Your task to perform on an android device: Open Google Maps and go to "Timeline" Image 0: 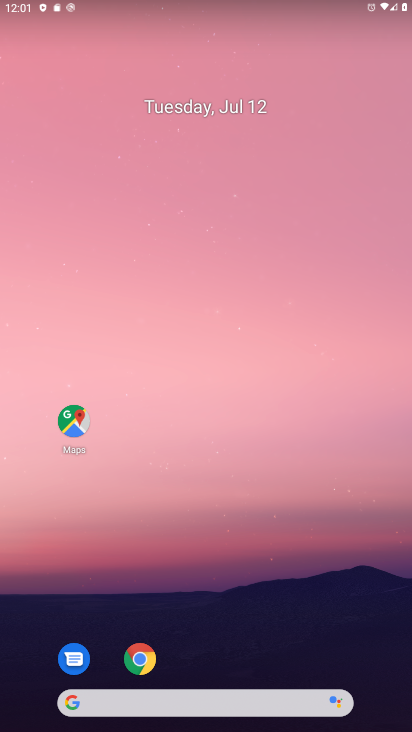
Step 0: drag from (188, 668) to (213, 6)
Your task to perform on an android device: Open Google Maps and go to "Timeline" Image 1: 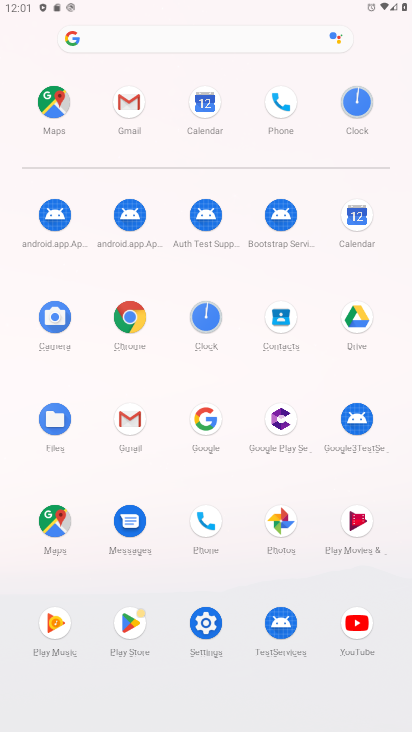
Step 1: click (52, 526)
Your task to perform on an android device: Open Google Maps and go to "Timeline" Image 2: 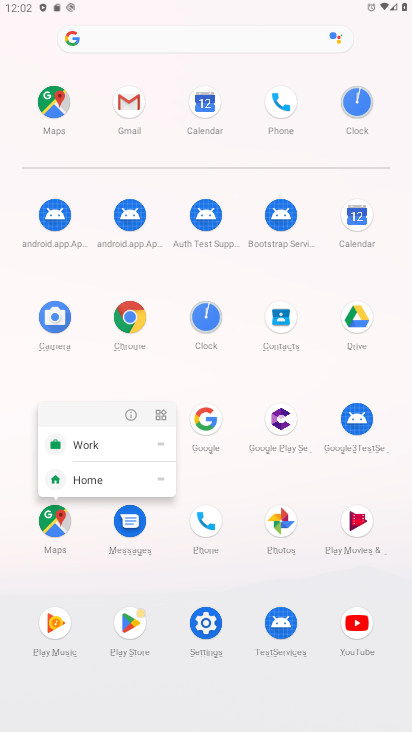
Step 2: click (127, 412)
Your task to perform on an android device: Open Google Maps and go to "Timeline" Image 3: 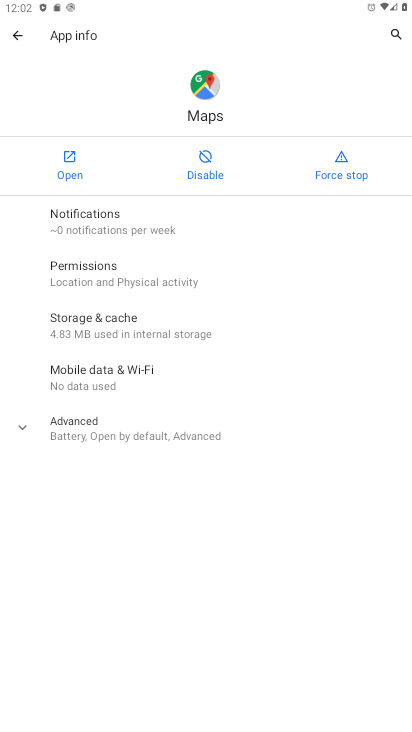
Step 3: click (68, 163)
Your task to perform on an android device: Open Google Maps and go to "Timeline" Image 4: 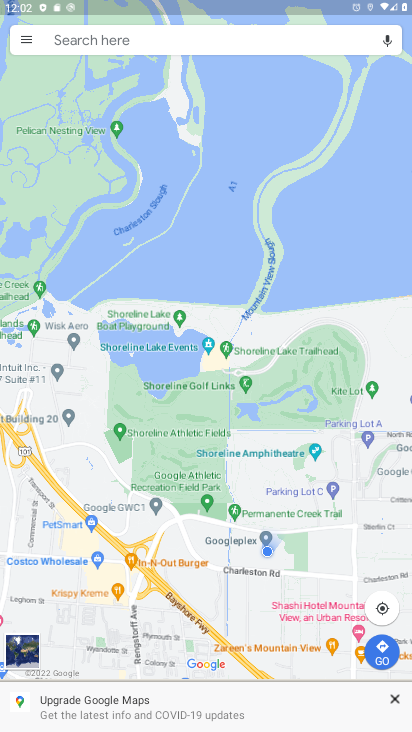
Step 4: drag from (224, 409) to (267, 186)
Your task to perform on an android device: Open Google Maps and go to "Timeline" Image 5: 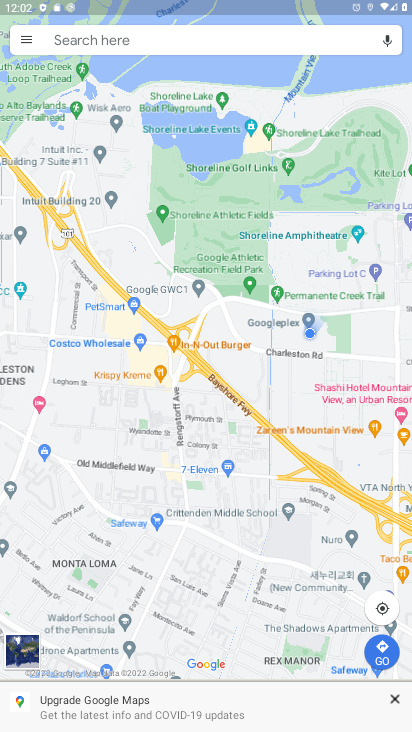
Step 5: click (22, 36)
Your task to perform on an android device: Open Google Maps and go to "Timeline" Image 6: 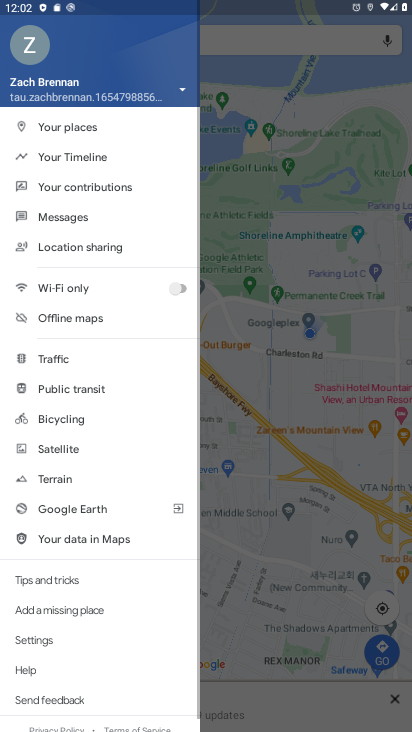
Step 6: click (74, 156)
Your task to perform on an android device: Open Google Maps and go to "Timeline" Image 7: 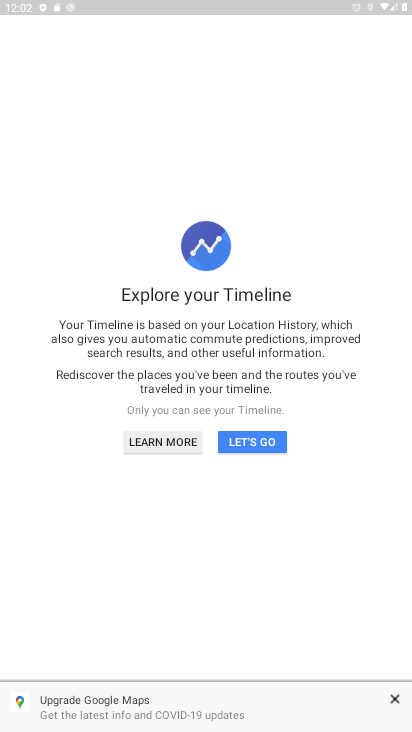
Step 7: drag from (198, 581) to (241, 244)
Your task to perform on an android device: Open Google Maps and go to "Timeline" Image 8: 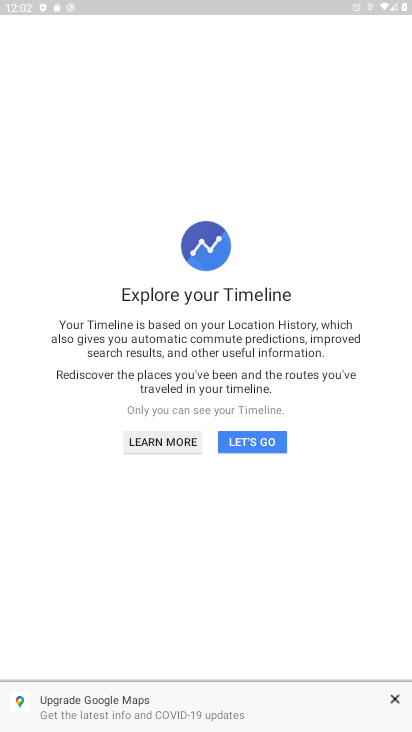
Step 8: click (238, 437)
Your task to perform on an android device: Open Google Maps and go to "Timeline" Image 9: 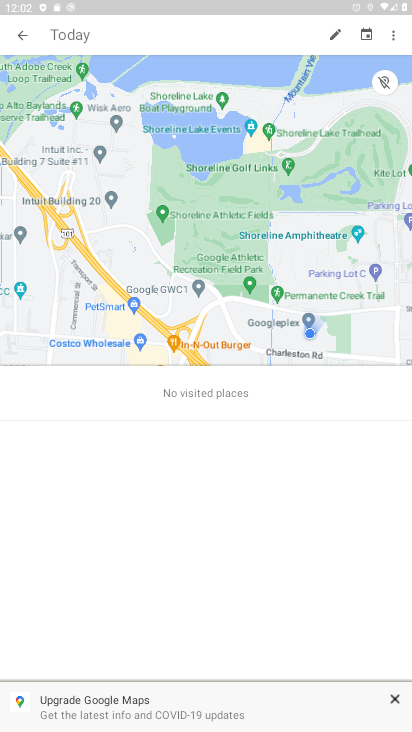
Step 9: task complete